Your task to perform on an android device: Set the phone to "Do not disturb". Image 0: 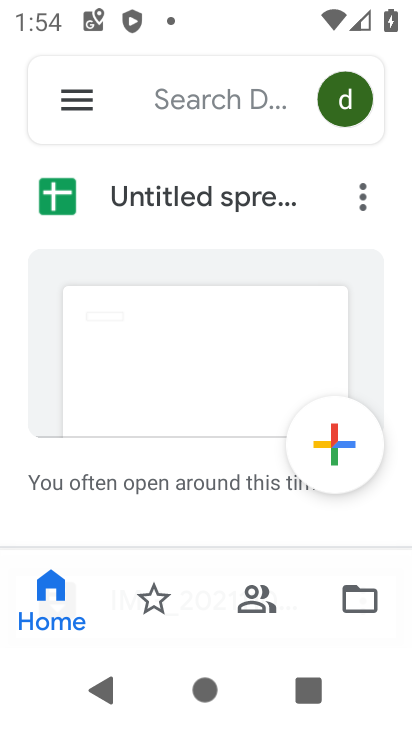
Step 0: press home button
Your task to perform on an android device: Set the phone to "Do not disturb". Image 1: 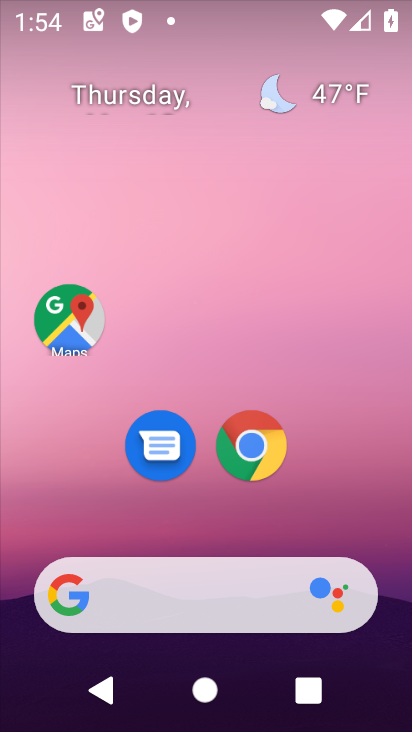
Step 1: drag from (213, 544) to (224, 251)
Your task to perform on an android device: Set the phone to "Do not disturb". Image 2: 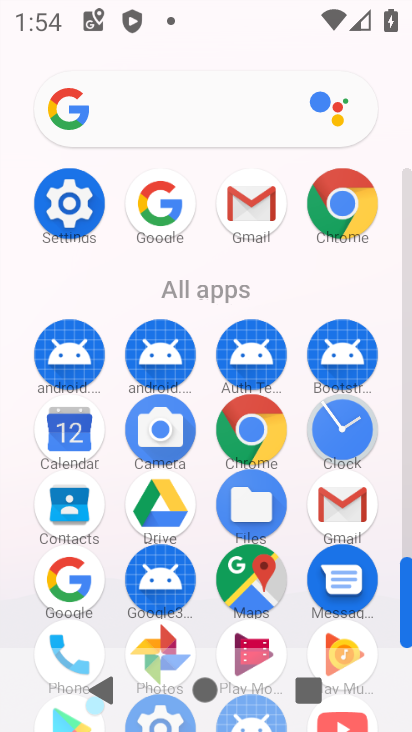
Step 2: click (90, 205)
Your task to perform on an android device: Set the phone to "Do not disturb". Image 3: 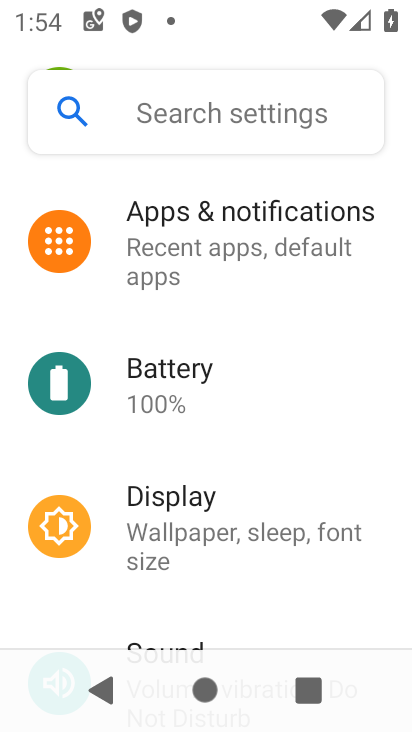
Step 3: drag from (224, 564) to (264, 313)
Your task to perform on an android device: Set the phone to "Do not disturb". Image 4: 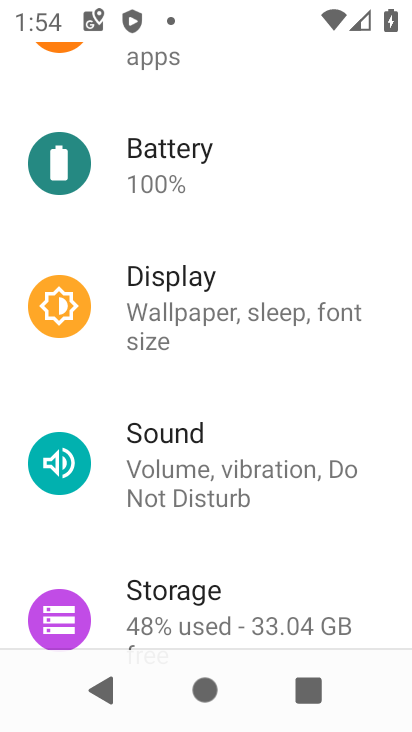
Step 4: click (185, 452)
Your task to perform on an android device: Set the phone to "Do not disturb". Image 5: 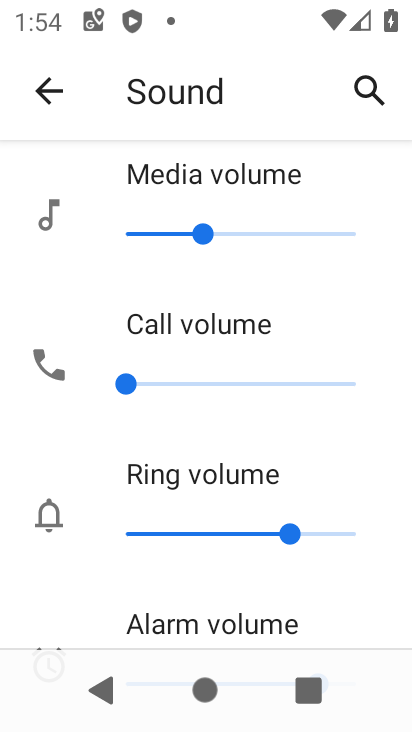
Step 5: drag from (256, 567) to (317, 265)
Your task to perform on an android device: Set the phone to "Do not disturb". Image 6: 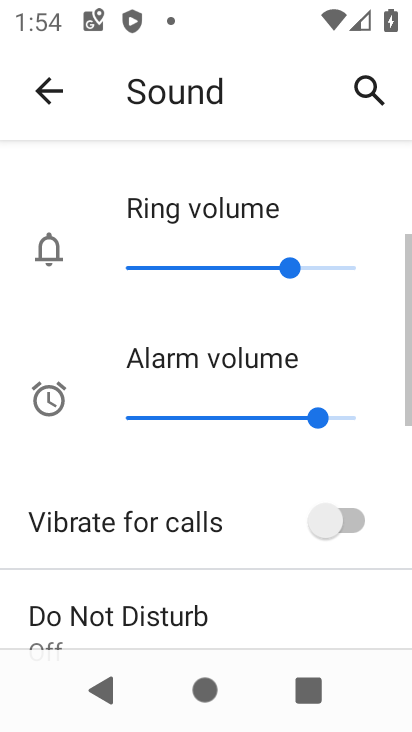
Step 6: drag from (291, 531) to (297, 280)
Your task to perform on an android device: Set the phone to "Do not disturb". Image 7: 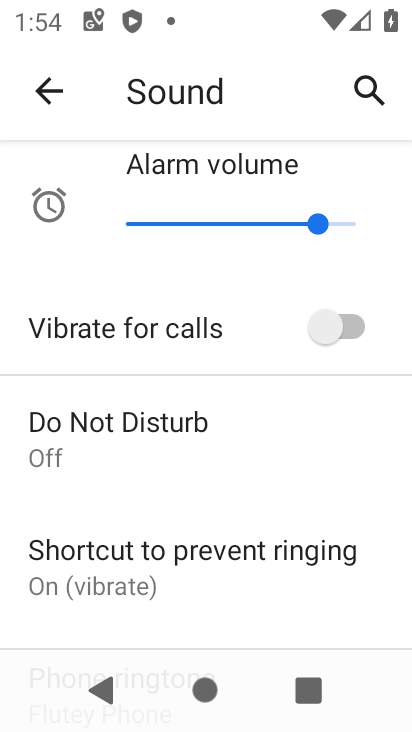
Step 7: drag from (286, 562) to (290, 315)
Your task to perform on an android device: Set the phone to "Do not disturb". Image 8: 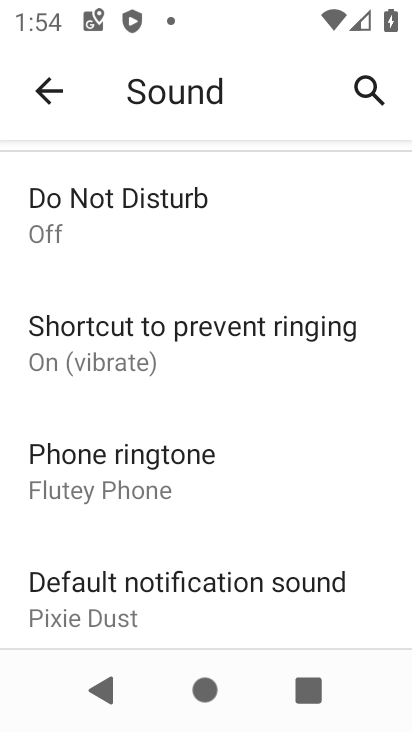
Step 8: drag from (262, 572) to (277, 308)
Your task to perform on an android device: Set the phone to "Do not disturb". Image 9: 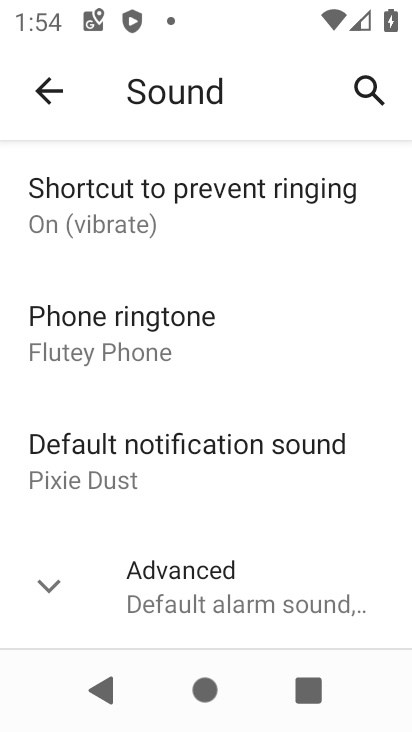
Step 9: drag from (282, 568) to (302, 332)
Your task to perform on an android device: Set the phone to "Do not disturb". Image 10: 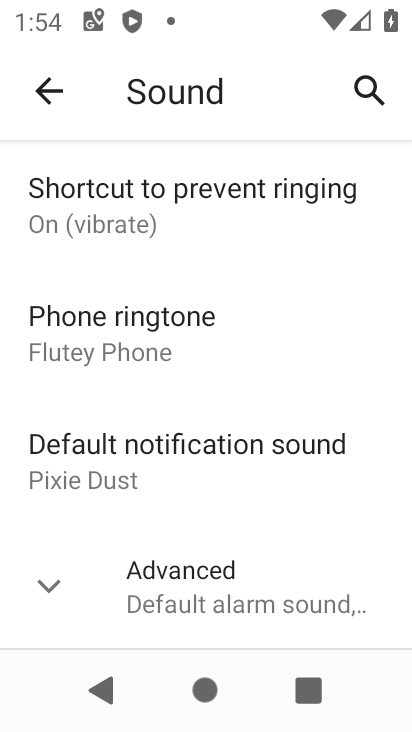
Step 10: drag from (234, 301) to (234, 581)
Your task to perform on an android device: Set the phone to "Do not disturb". Image 11: 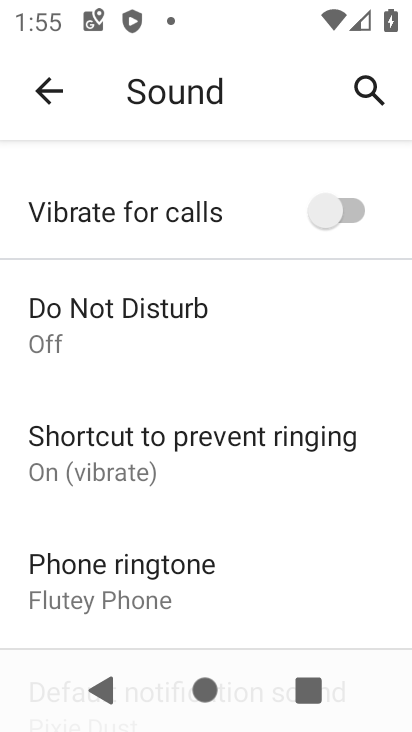
Step 11: click (166, 358)
Your task to perform on an android device: Set the phone to "Do not disturb". Image 12: 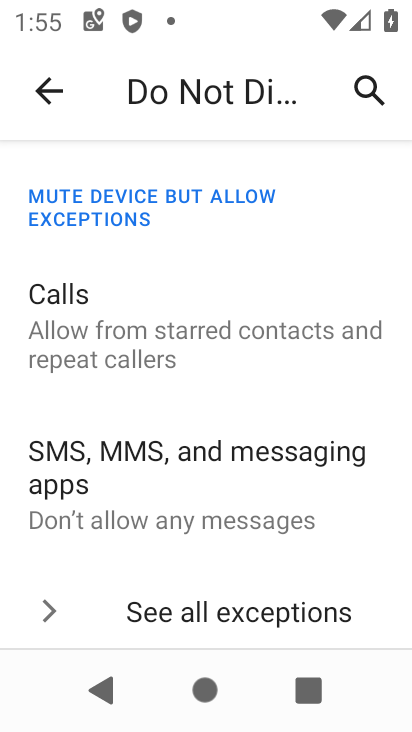
Step 12: drag from (227, 575) to (306, 326)
Your task to perform on an android device: Set the phone to "Do not disturb". Image 13: 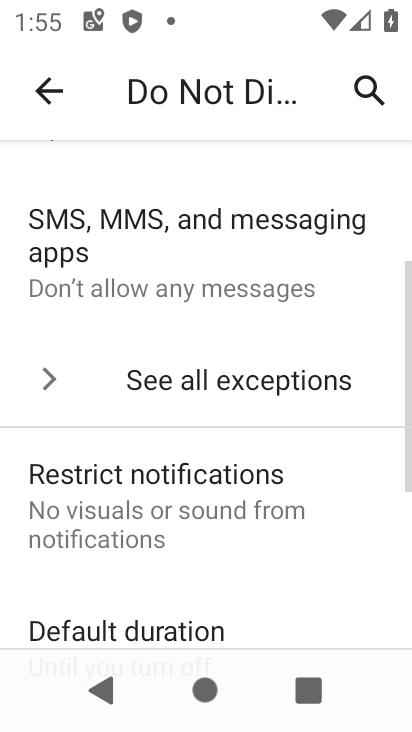
Step 13: drag from (246, 553) to (275, 266)
Your task to perform on an android device: Set the phone to "Do not disturb". Image 14: 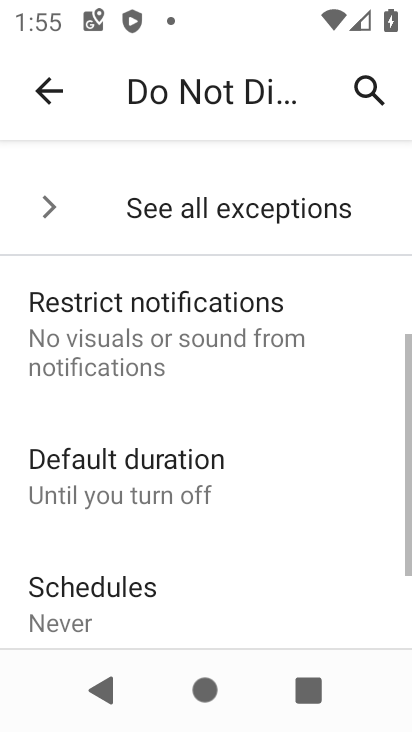
Step 14: drag from (239, 549) to (277, 297)
Your task to perform on an android device: Set the phone to "Do not disturb". Image 15: 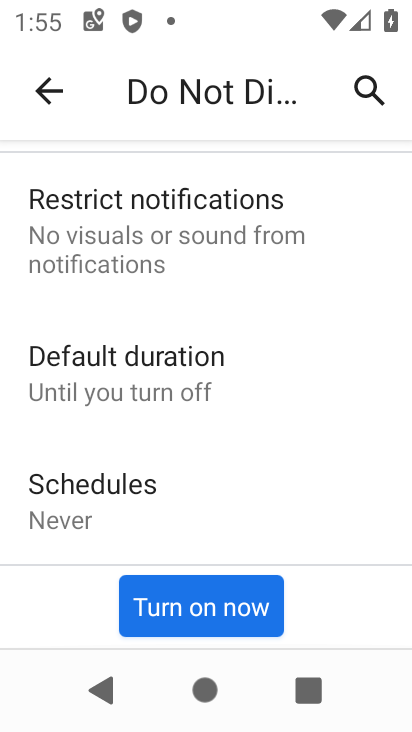
Step 15: click (215, 597)
Your task to perform on an android device: Set the phone to "Do not disturb". Image 16: 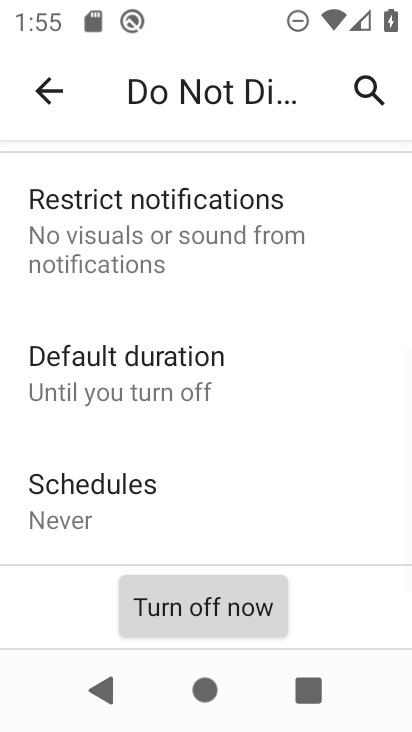
Step 16: task complete